Your task to perform on an android device: Open location settings Image 0: 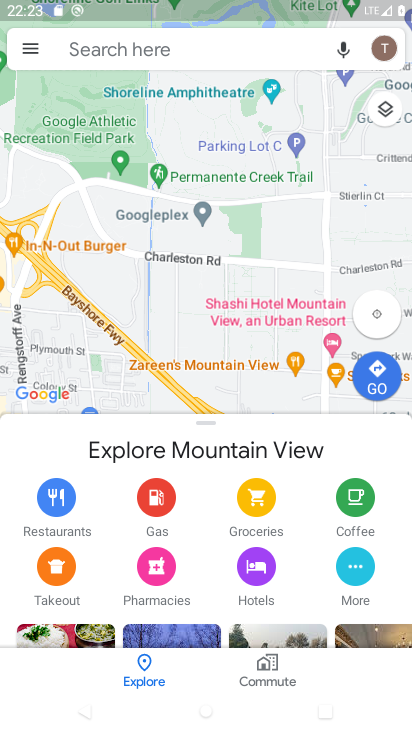
Step 0: press home button
Your task to perform on an android device: Open location settings Image 1: 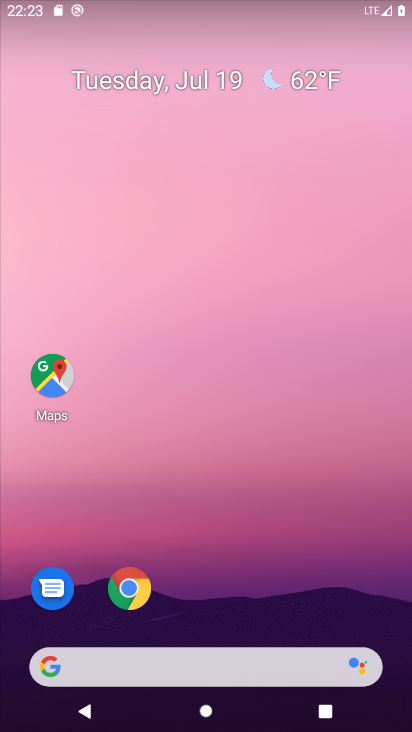
Step 1: drag from (203, 601) to (203, 263)
Your task to perform on an android device: Open location settings Image 2: 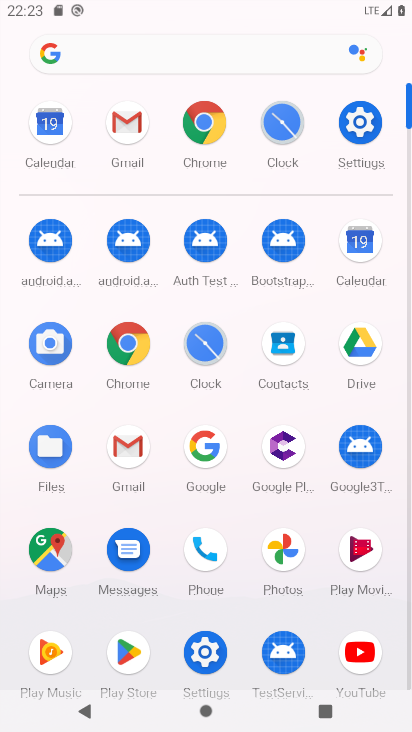
Step 2: click (359, 140)
Your task to perform on an android device: Open location settings Image 3: 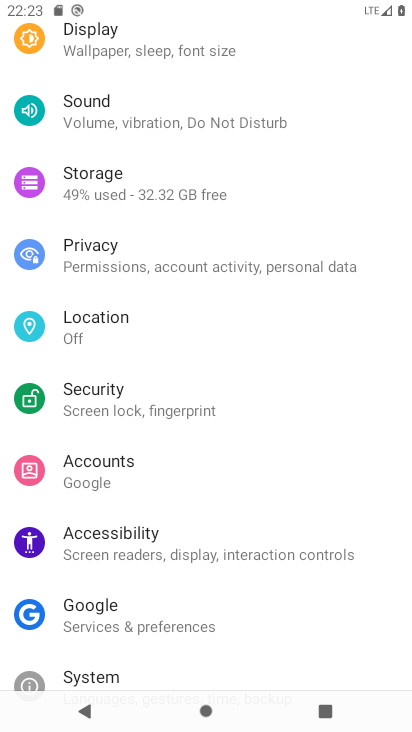
Step 3: click (114, 334)
Your task to perform on an android device: Open location settings Image 4: 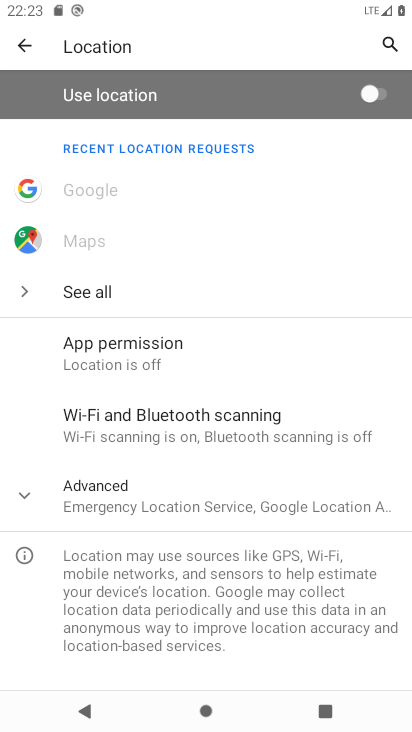
Step 4: task complete